Your task to perform on an android device: Go to network settings Image 0: 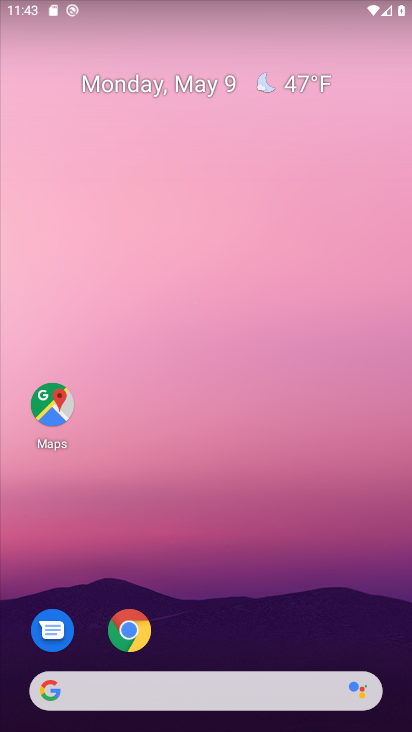
Step 0: drag from (276, 645) to (125, 144)
Your task to perform on an android device: Go to network settings Image 1: 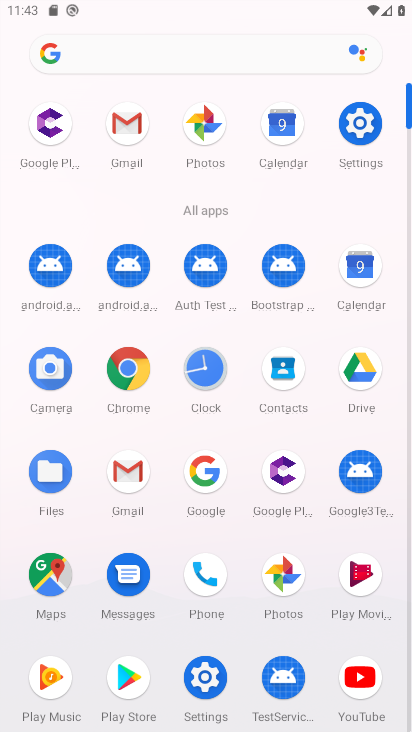
Step 1: click (355, 127)
Your task to perform on an android device: Go to network settings Image 2: 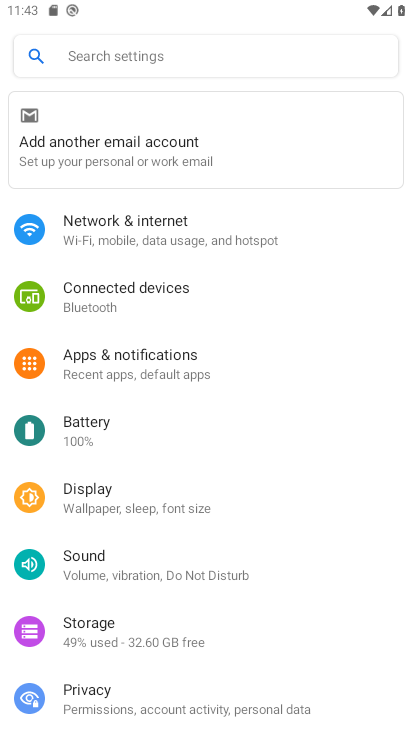
Step 2: click (183, 240)
Your task to perform on an android device: Go to network settings Image 3: 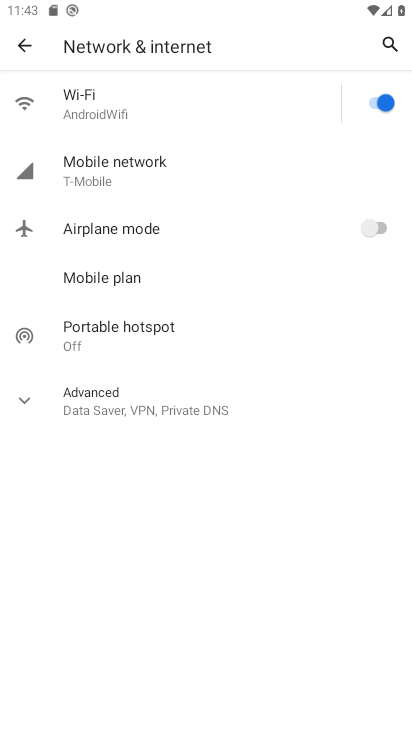
Step 3: click (152, 171)
Your task to perform on an android device: Go to network settings Image 4: 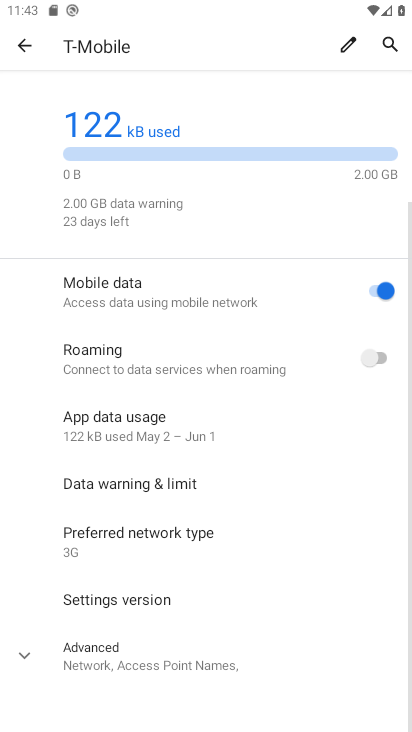
Step 4: drag from (153, 673) to (118, 655)
Your task to perform on an android device: Go to network settings Image 5: 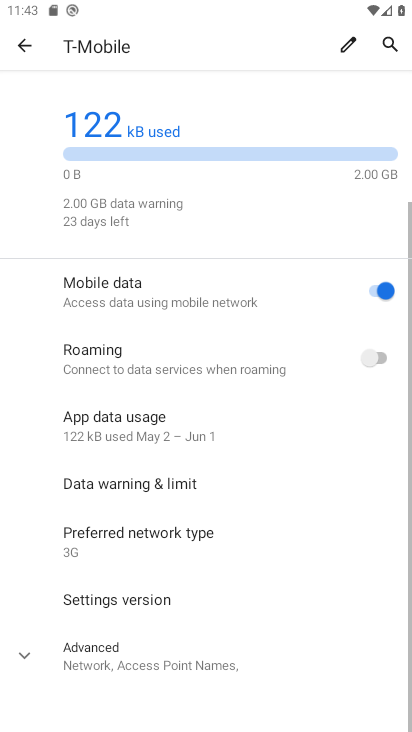
Step 5: click (118, 655)
Your task to perform on an android device: Go to network settings Image 6: 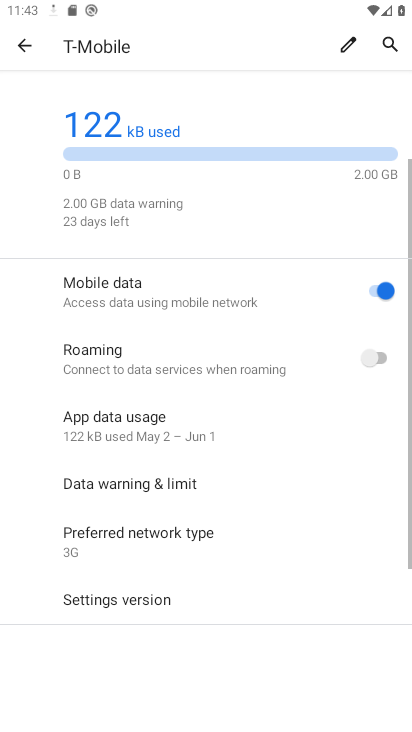
Step 6: task complete